Your task to perform on an android device: What is the news today? Image 0: 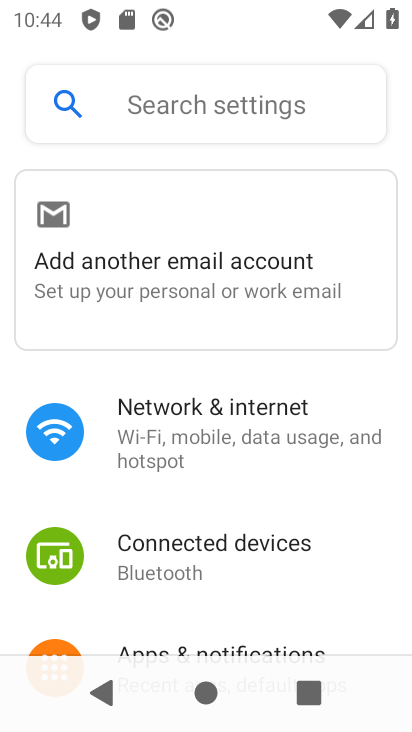
Step 0: press home button
Your task to perform on an android device: What is the news today? Image 1: 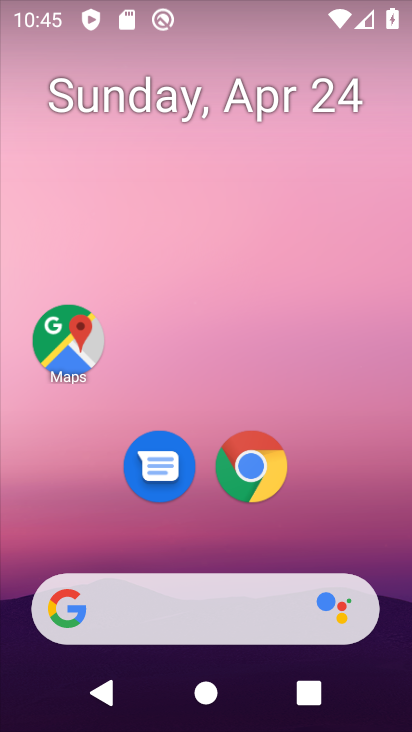
Step 1: task complete